Your task to perform on an android device: see sites visited before in the chrome app Image 0: 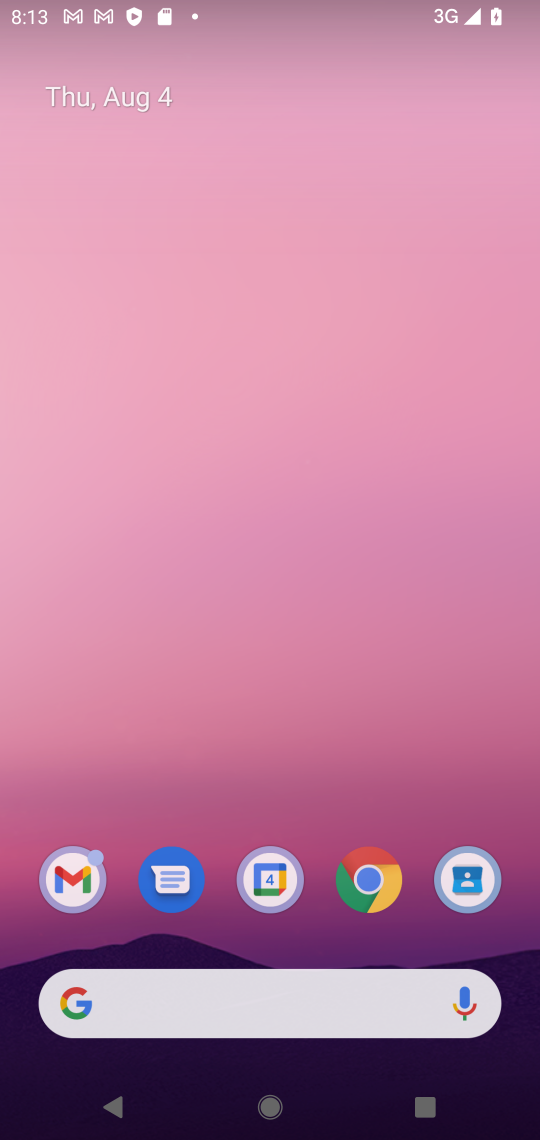
Step 0: press home button
Your task to perform on an android device: see sites visited before in the chrome app Image 1: 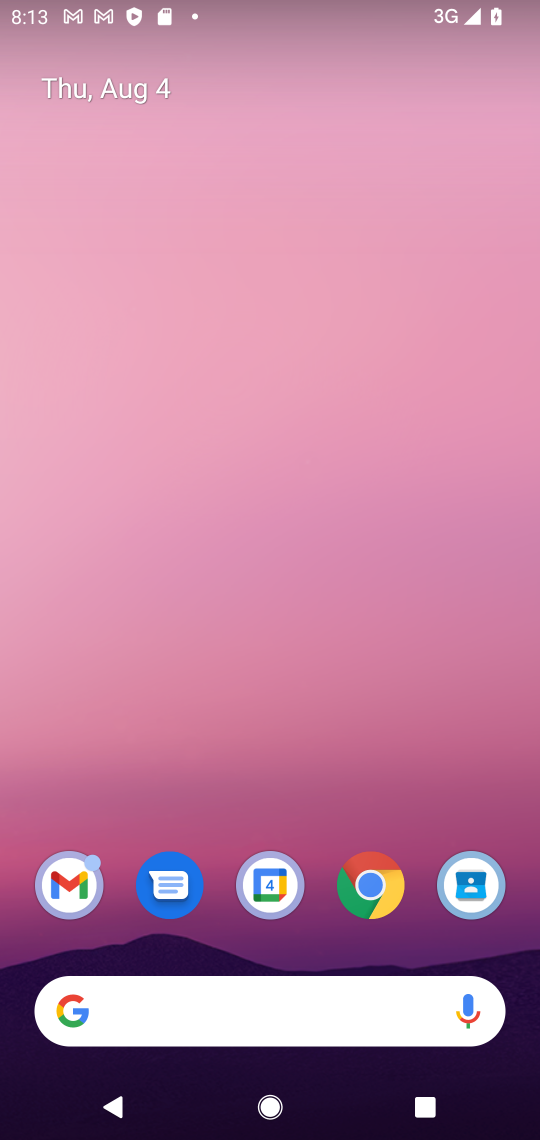
Step 1: drag from (350, 957) to (321, 2)
Your task to perform on an android device: see sites visited before in the chrome app Image 2: 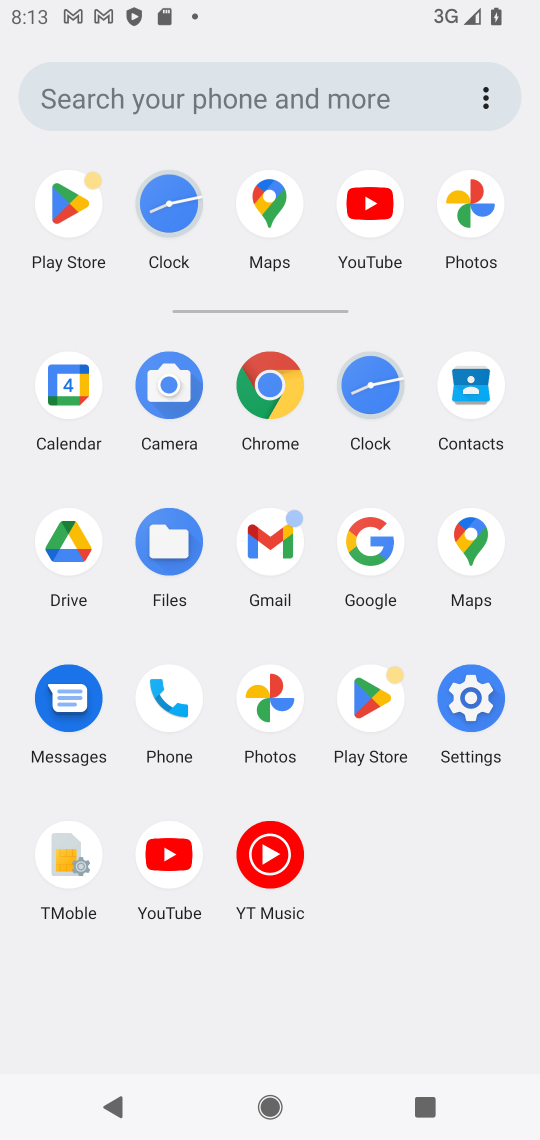
Step 2: click (261, 415)
Your task to perform on an android device: see sites visited before in the chrome app Image 3: 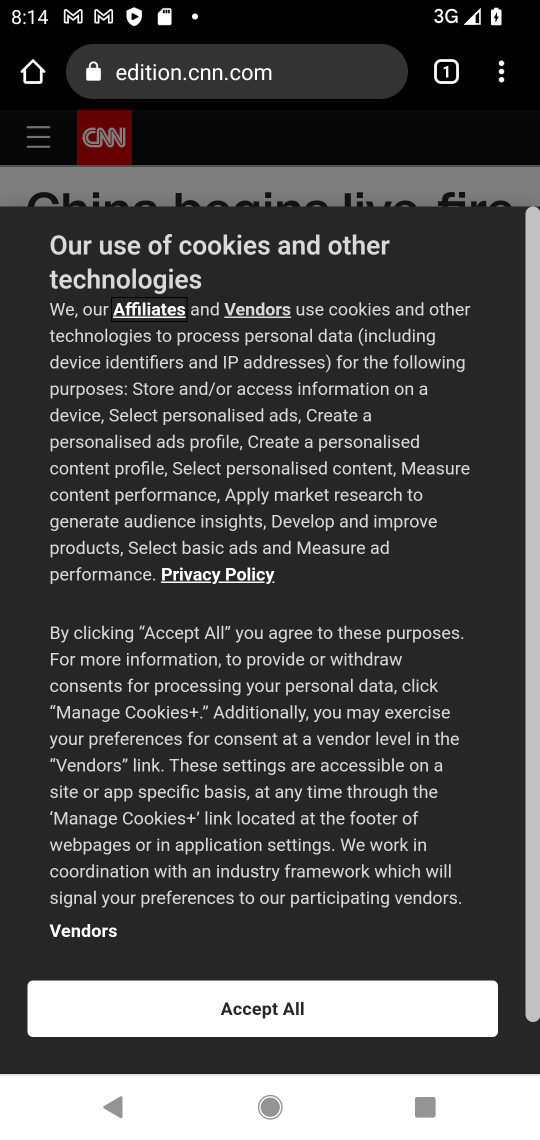
Step 3: click (497, 115)
Your task to perform on an android device: see sites visited before in the chrome app Image 4: 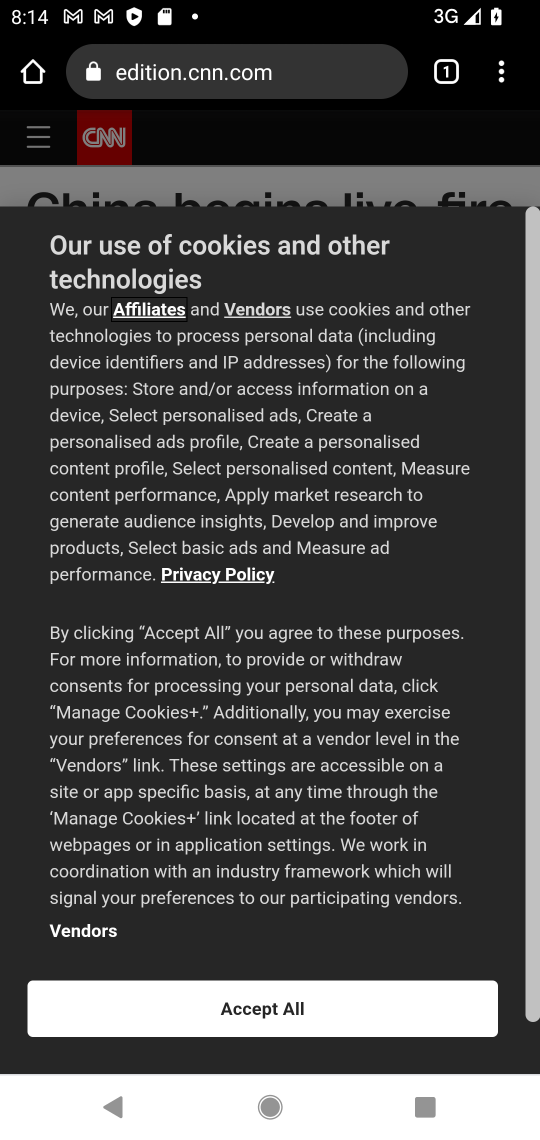
Step 4: task complete